Your task to perform on an android device: turn on airplane mode Image 0: 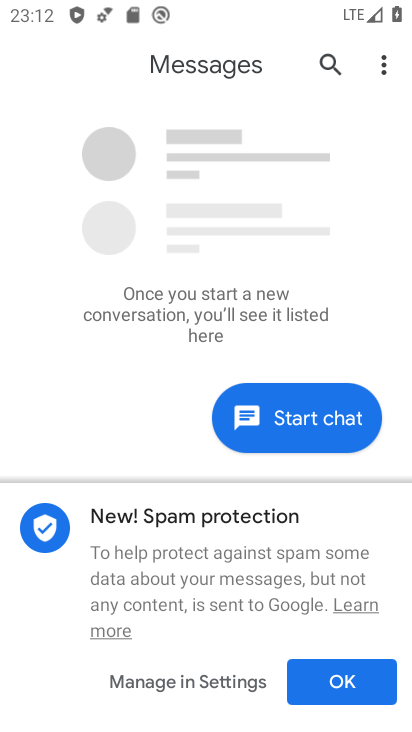
Step 0: press home button
Your task to perform on an android device: turn on airplane mode Image 1: 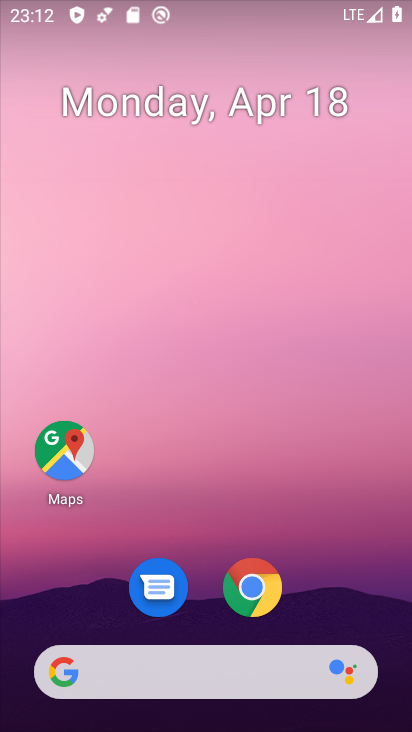
Step 1: drag from (382, 575) to (363, 96)
Your task to perform on an android device: turn on airplane mode Image 2: 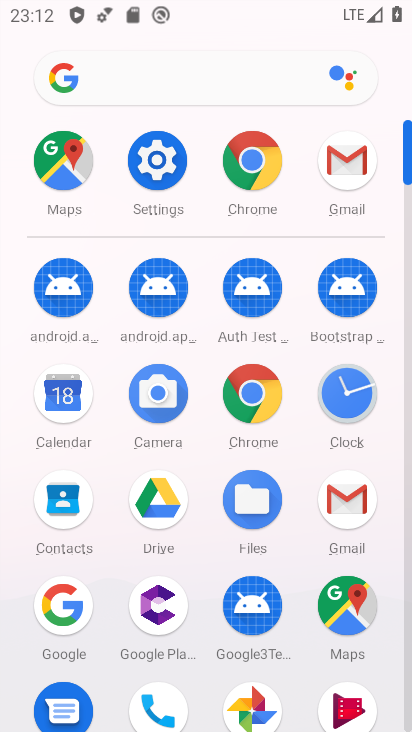
Step 2: click (163, 161)
Your task to perform on an android device: turn on airplane mode Image 3: 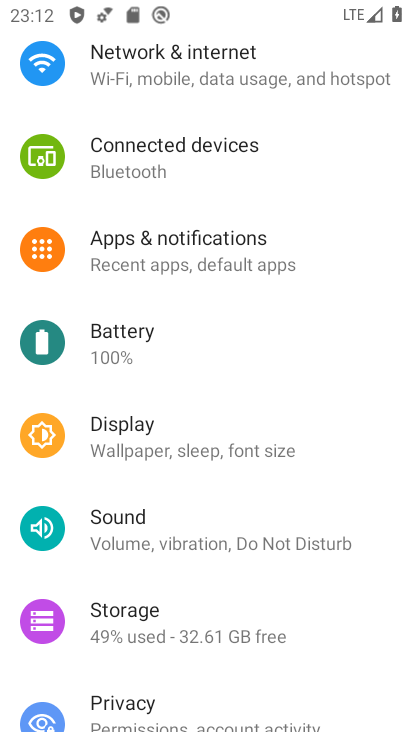
Step 3: click (242, 85)
Your task to perform on an android device: turn on airplane mode Image 4: 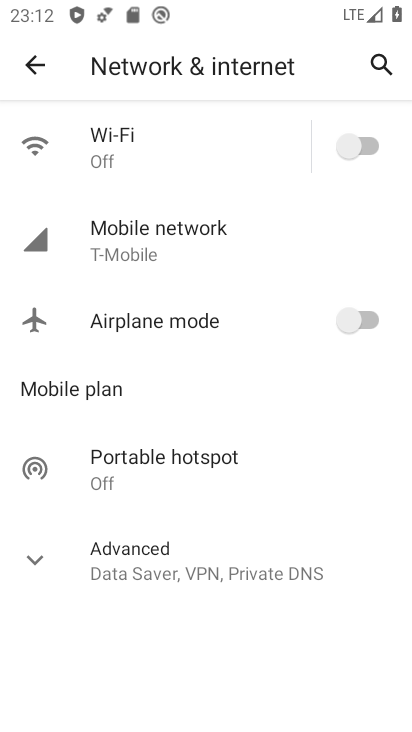
Step 4: click (370, 324)
Your task to perform on an android device: turn on airplane mode Image 5: 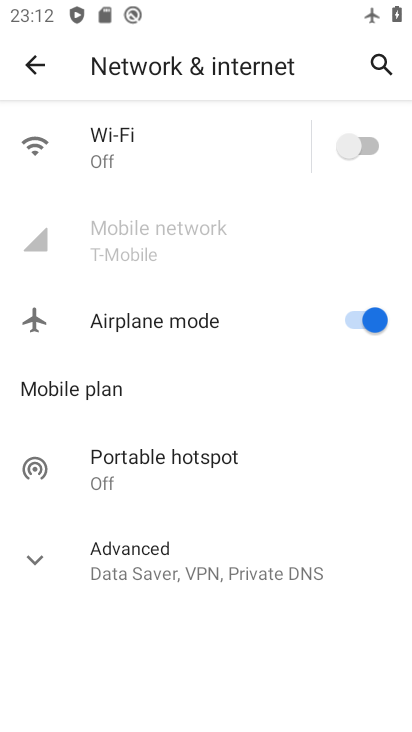
Step 5: task complete